Your task to perform on an android device: Open the clock Image 0: 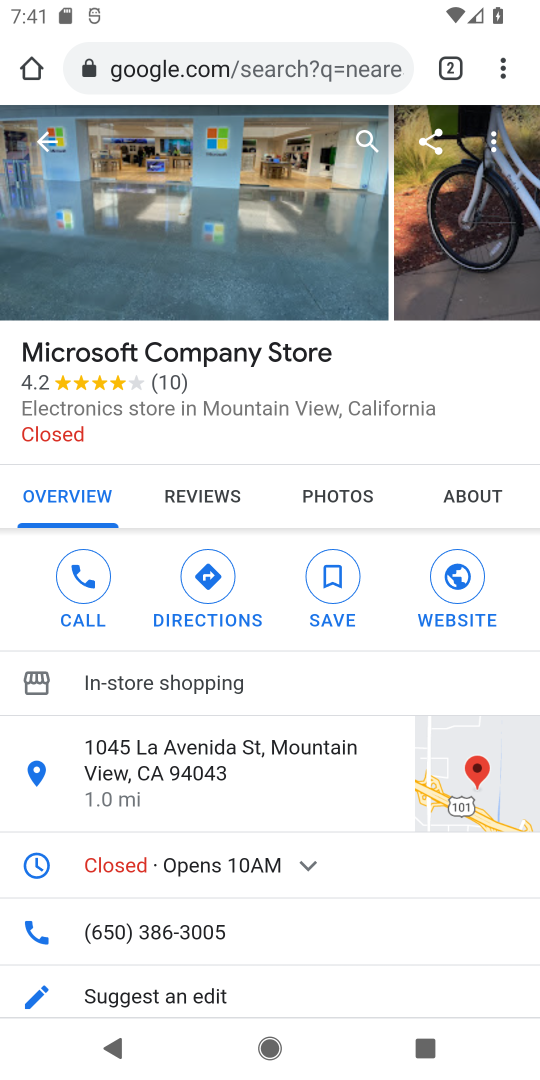
Step 0: press home button
Your task to perform on an android device: Open the clock Image 1: 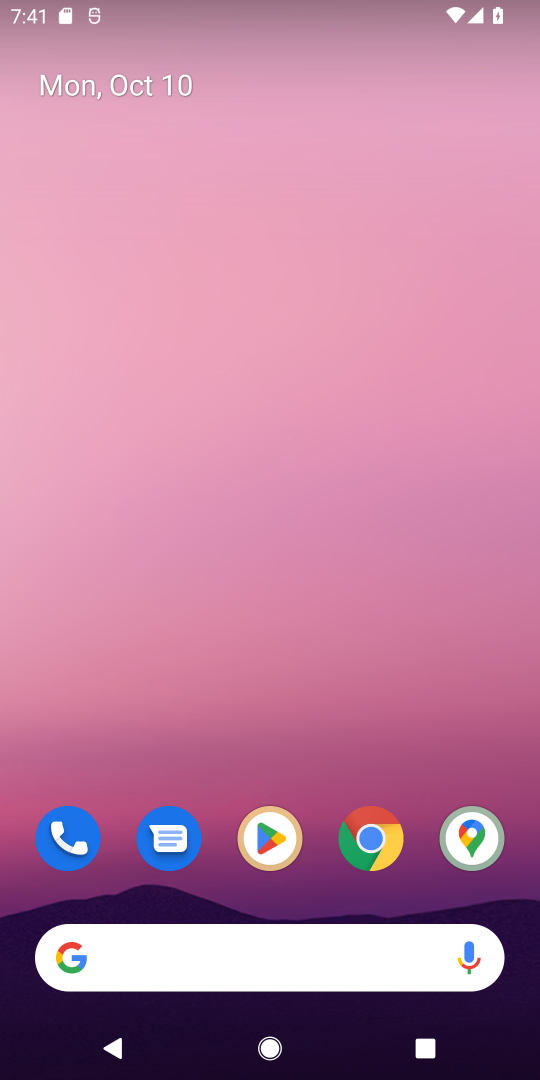
Step 1: drag from (419, 894) to (403, 182)
Your task to perform on an android device: Open the clock Image 2: 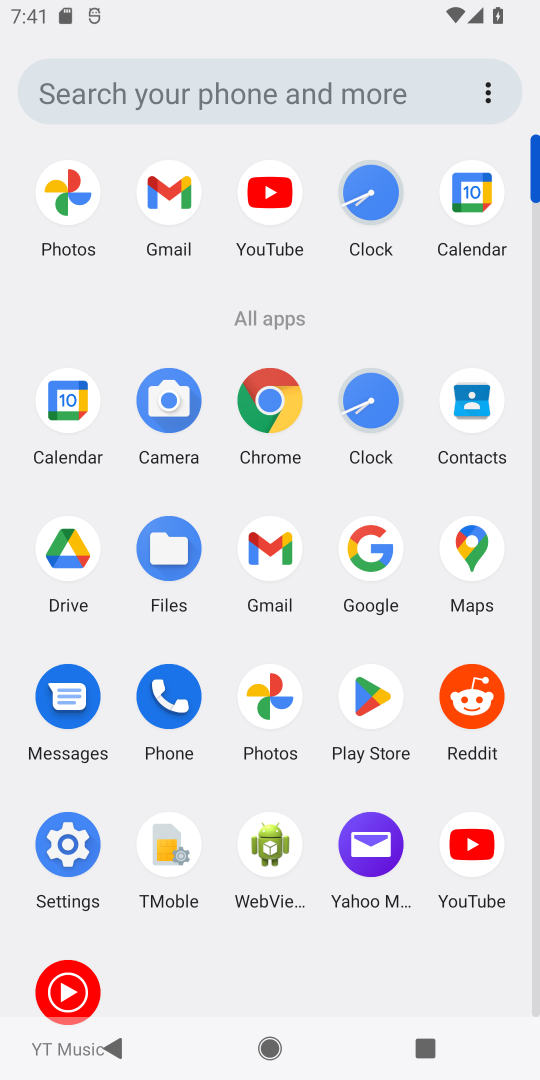
Step 2: click (369, 401)
Your task to perform on an android device: Open the clock Image 3: 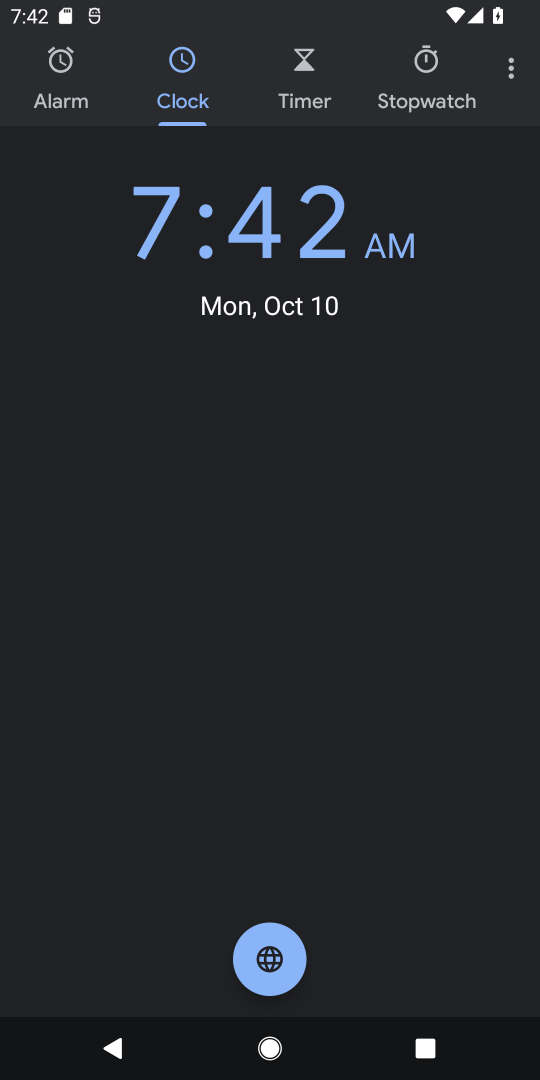
Step 3: task complete